Your task to perform on an android device: Go to Yahoo.com Image 0: 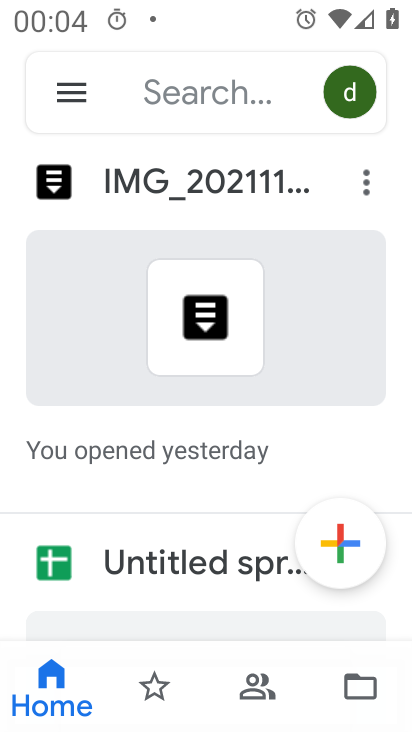
Step 0: press home button
Your task to perform on an android device: Go to Yahoo.com Image 1: 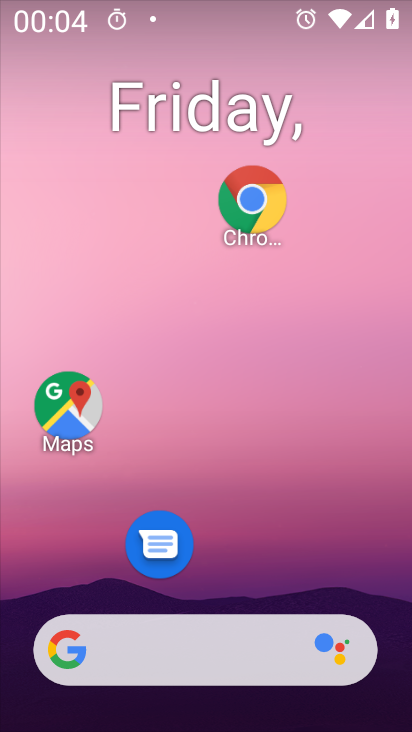
Step 1: click (247, 196)
Your task to perform on an android device: Go to Yahoo.com Image 2: 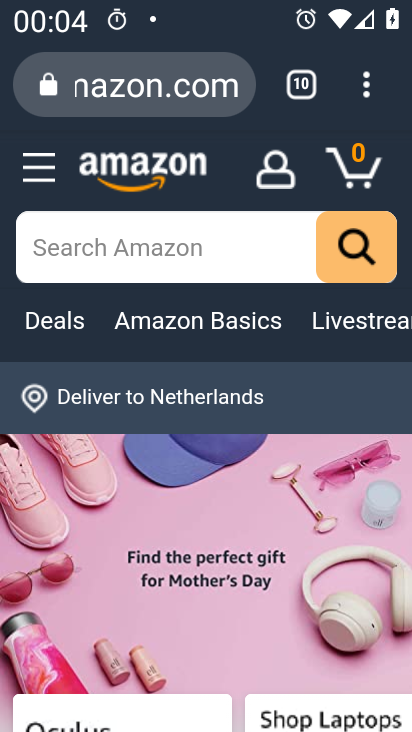
Step 2: click (352, 92)
Your task to perform on an android device: Go to Yahoo.com Image 3: 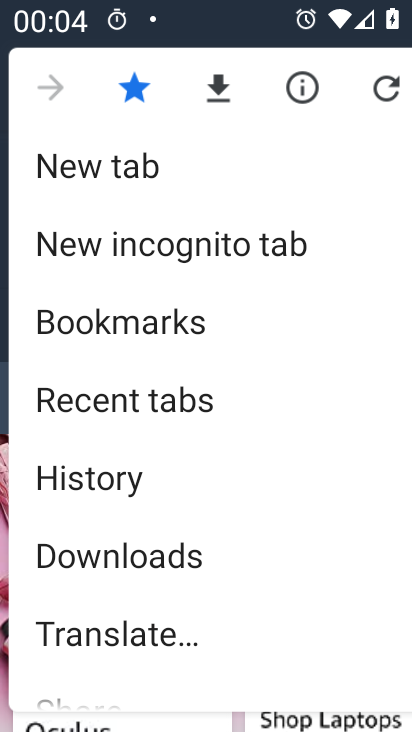
Step 3: click (198, 166)
Your task to perform on an android device: Go to Yahoo.com Image 4: 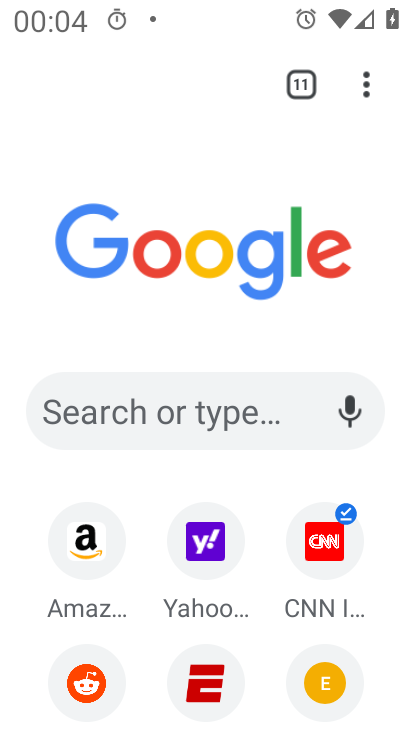
Step 4: click (218, 549)
Your task to perform on an android device: Go to Yahoo.com Image 5: 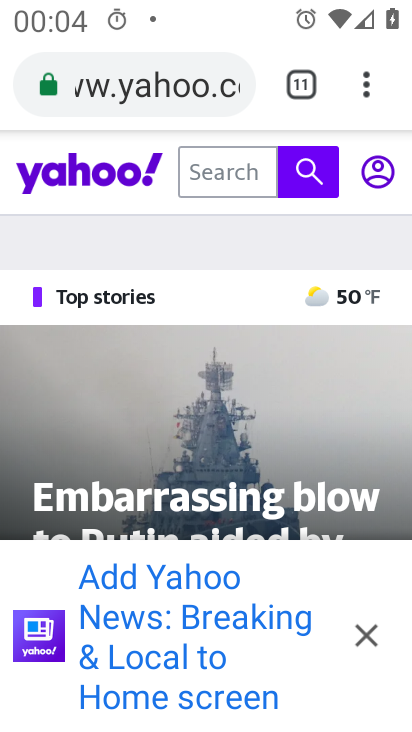
Step 5: task complete